Your task to perform on an android device: check the backup settings in the google photos Image 0: 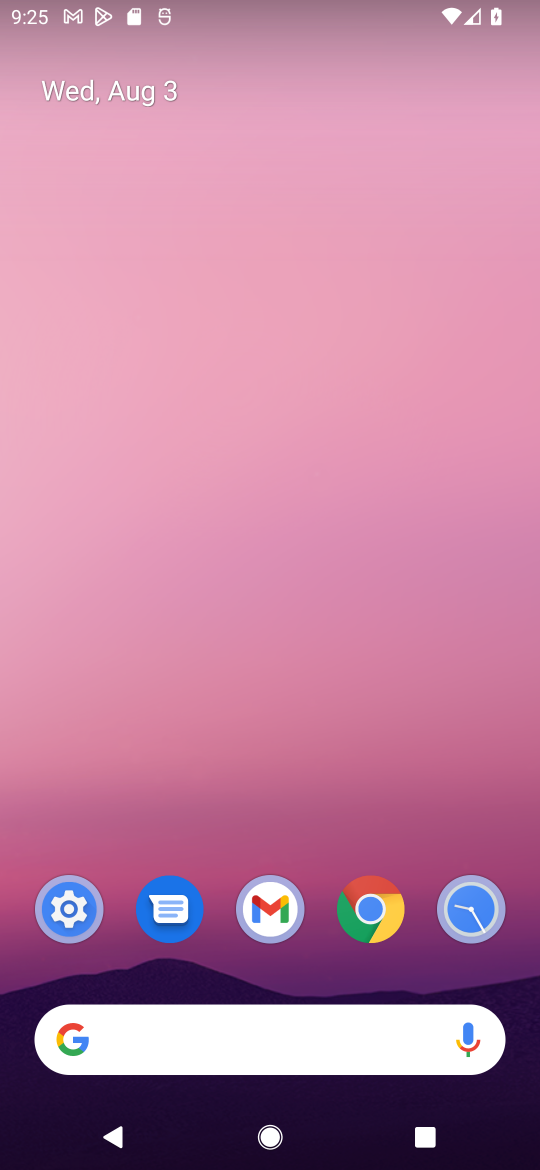
Step 0: press home button
Your task to perform on an android device: check the backup settings in the google photos Image 1: 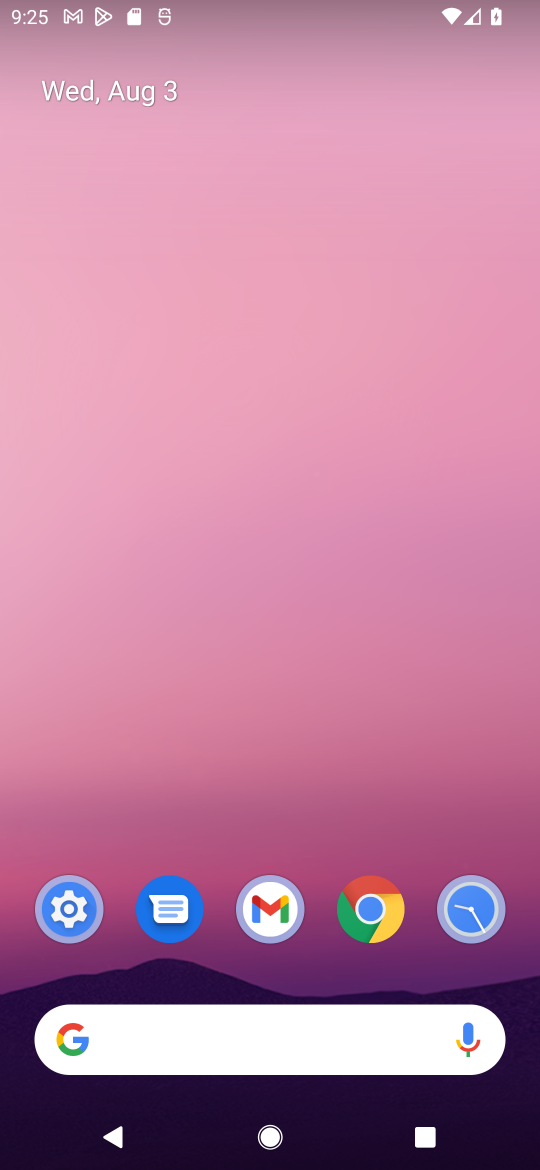
Step 1: drag from (384, 823) to (406, 393)
Your task to perform on an android device: check the backup settings in the google photos Image 2: 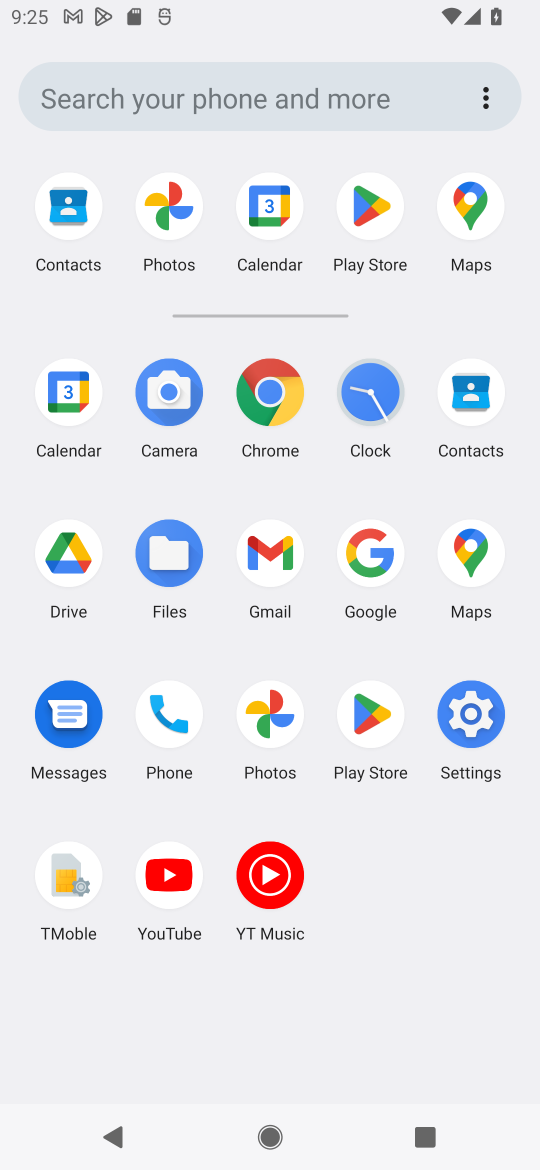
Step 2: click (275, 715)
Your task to perform on an android device: check the backup settings in the google photos Image 3: 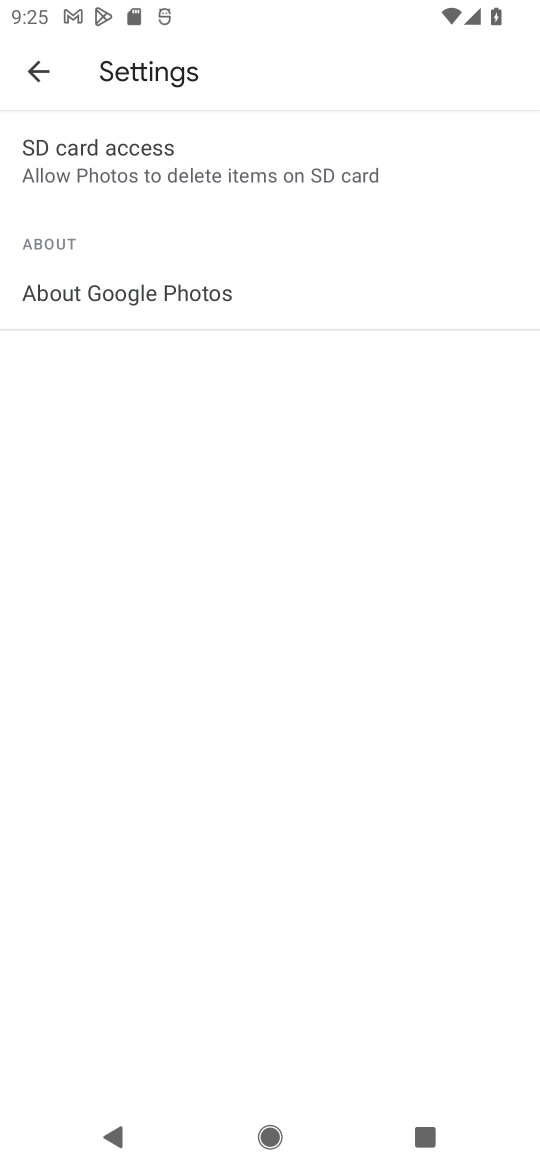
Step 3: press back button
Your task to perform on an android device: check the backup settings in the google photos Image 4: 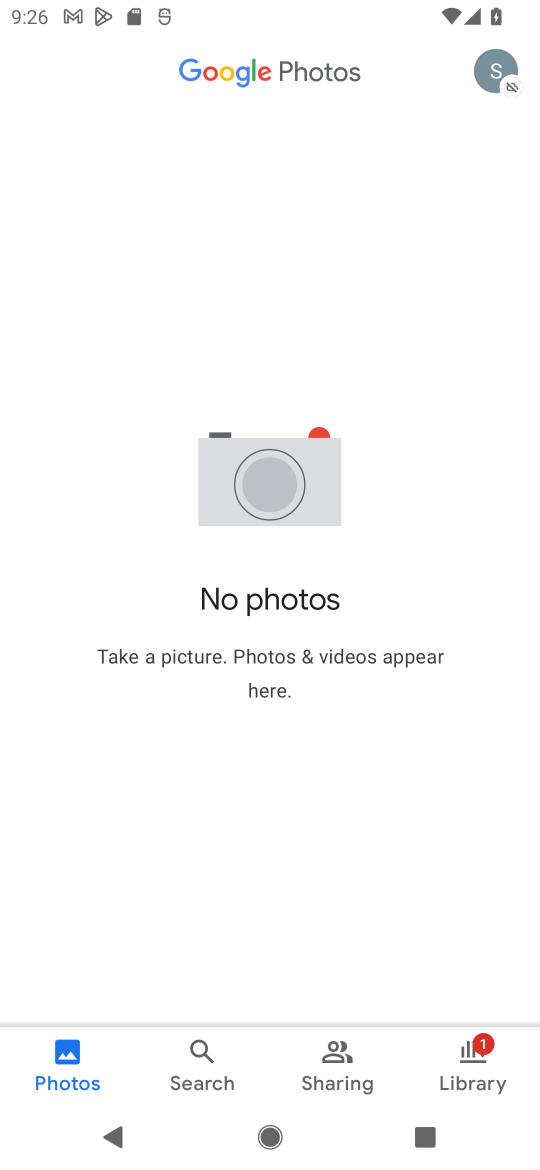
Step 4: click (497, 67)
Your task to perform on an android device: check the backup settings in the google photos Image 5: 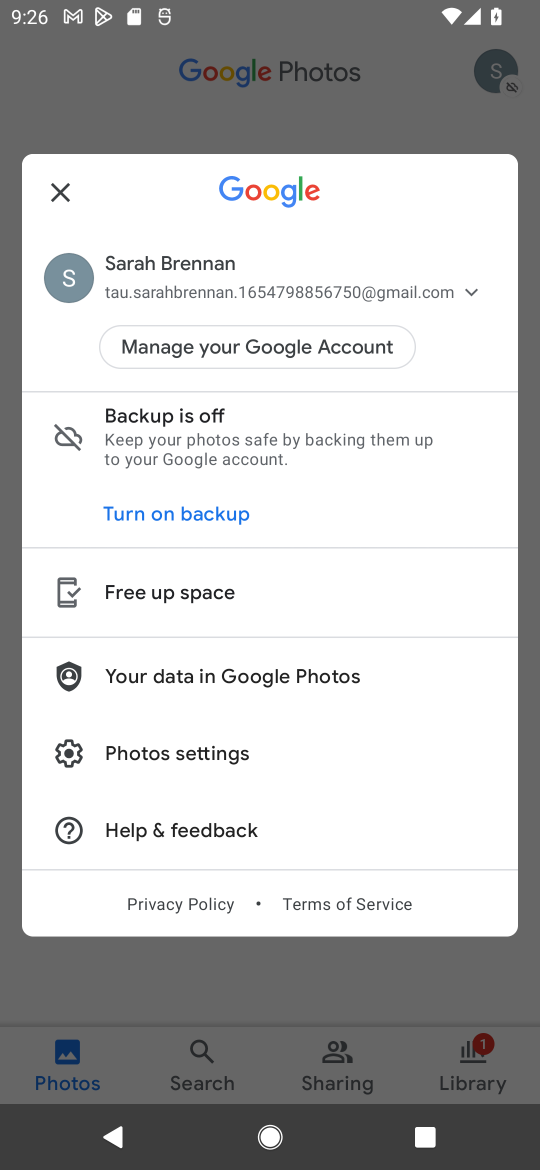
Step 5: click (265, 750)
Your task to perform on an android device: check the backup settings in the google photos Image 6: 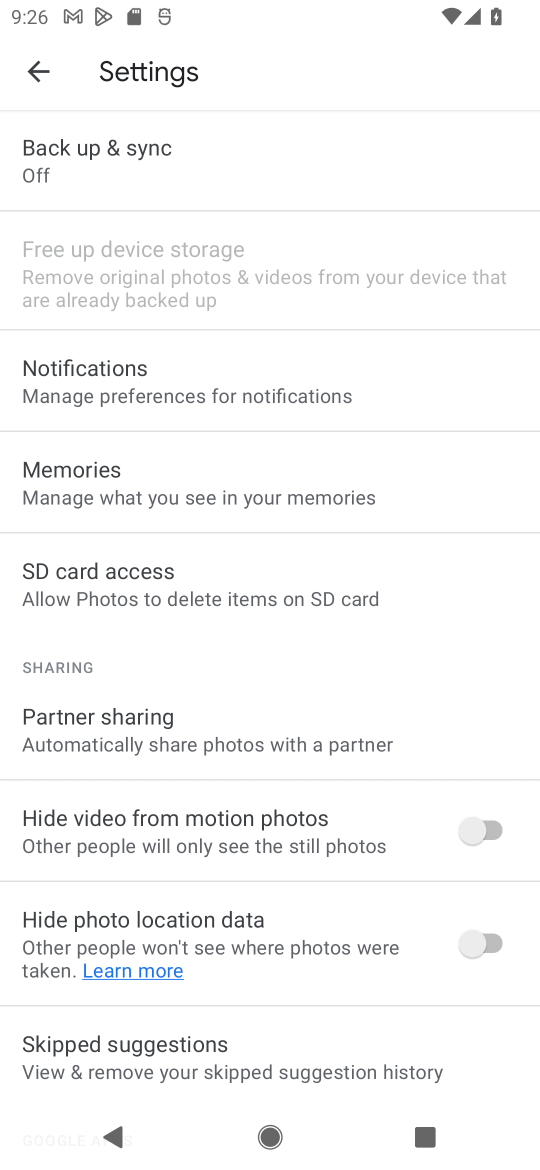
Step 6: click (265, 177)
Your task to perform on an android device: check the backup settings in the google photos Image 7: 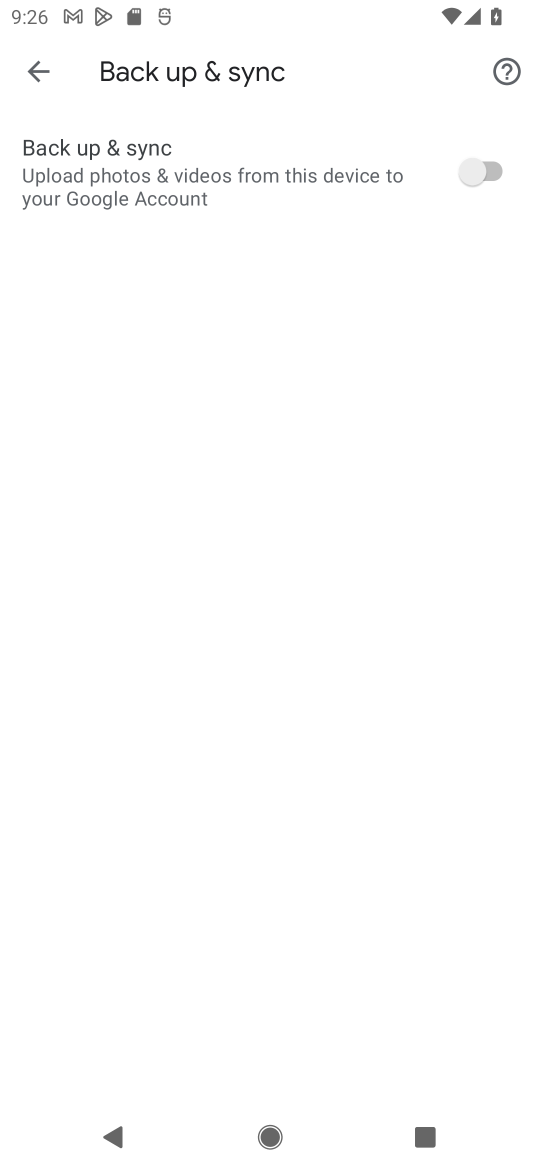
Step 7: task complete